Your task to perform on an android device: toggle sleep mode Image 0: 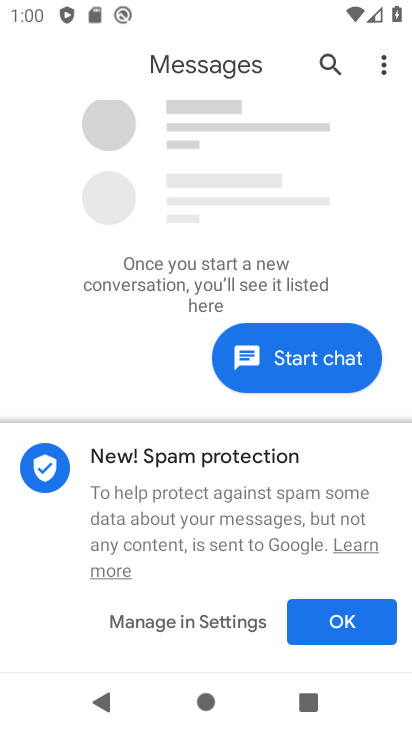
Step 0: press home button
Your task to perform on an android device: toggle sleep mode Image 1: 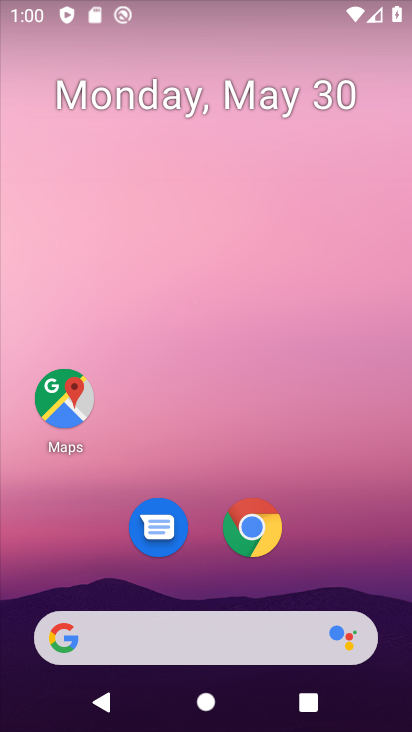
Step 1: drag from (199, 584) to (162, 9)
Your task to perform on an android device: toggle sleep mode Image 2: 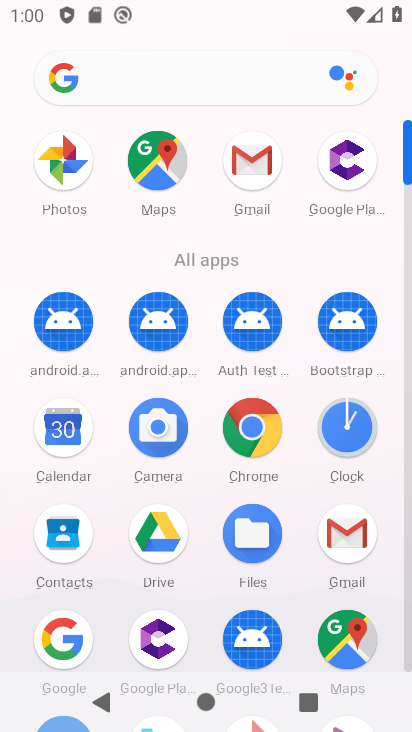
Step 2: drag from (200, 508) to (219, 52)
Your task to perform on an android device: toggle sleep mode Image 3: 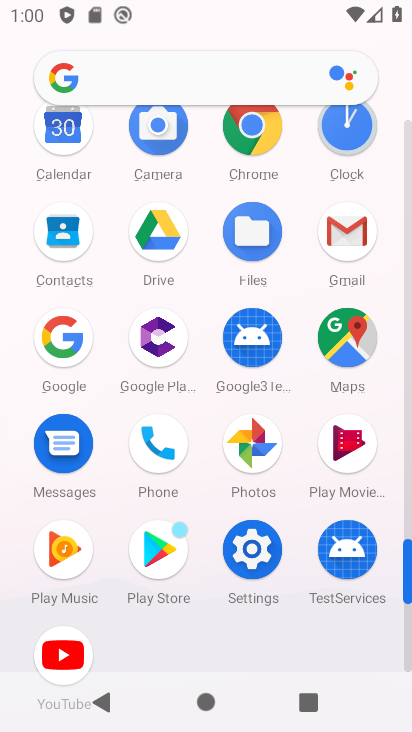
Step 3: click (237, 566)
Your task to perform on an android device: toggle sleep mode Image 4: 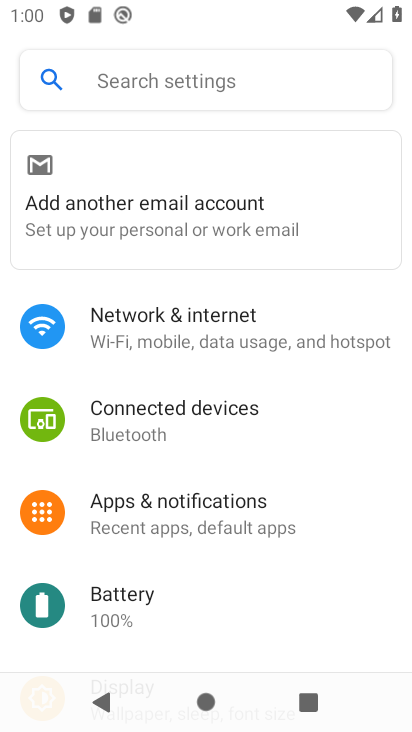
Step 4: click (216, 74)
Your task to perform on an android device: toggle sleep mode Image 5: 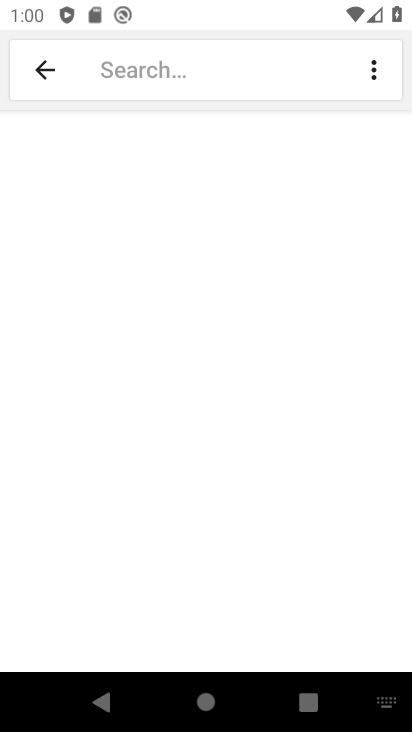
Step 5: type "sleep mode"
Your task to perform on an android device: toggle sleep mode Image 6: 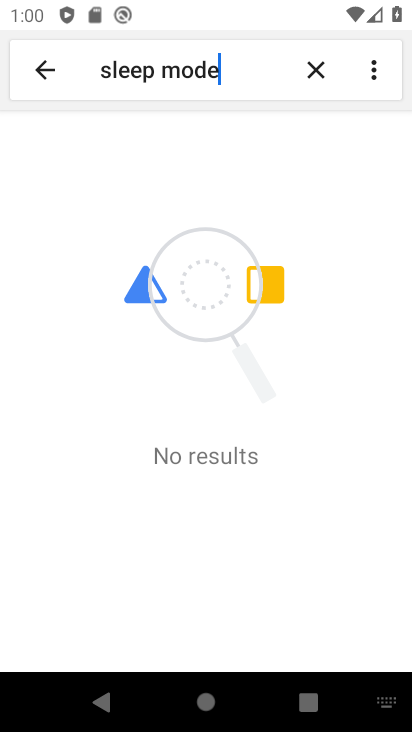
Step 6: click (382, 272)
Your task to perform on an android device: toggle sleep mode Image 7: 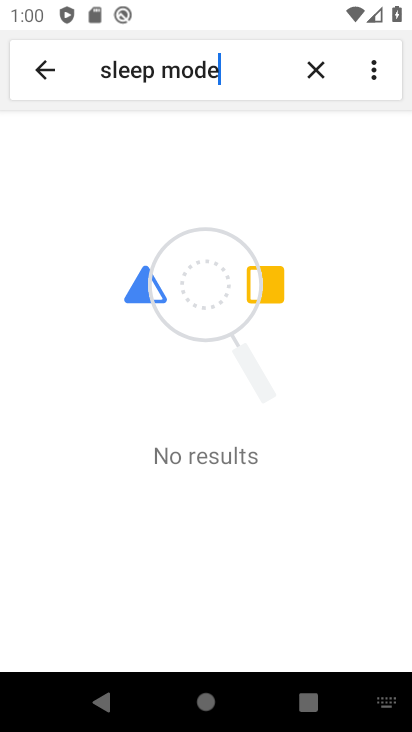
Step 7: task complete